Your task to perform on an android device: turn on wifi Image 0: 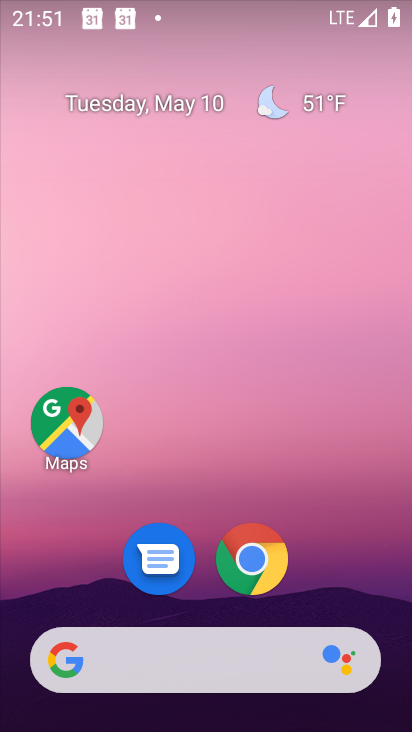
Step 0: drag from (346, 537) to (382, 291)
Your task to perform on an android device: turn on wifi Image 1: 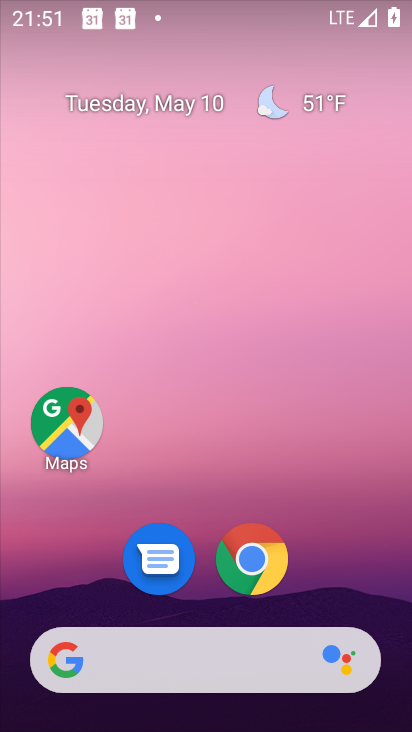
Step 1: drag from (372, 577) to (323, 34)
Your task to perform on an android device: turn on wifi Image 2: 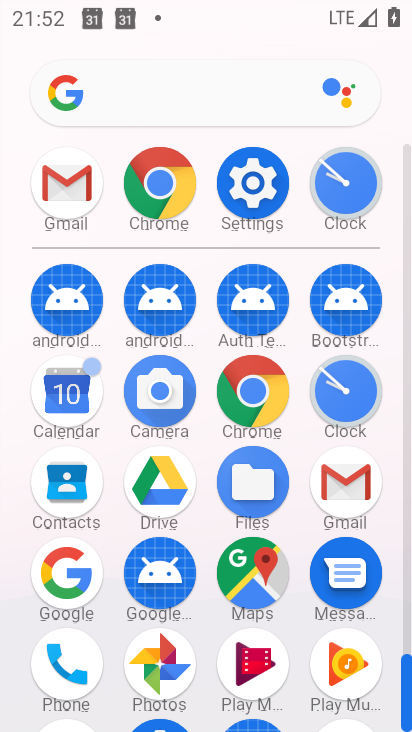
Step 2: click (255, 182)
Your task to perform on an android device: turn on wifi Image 3: 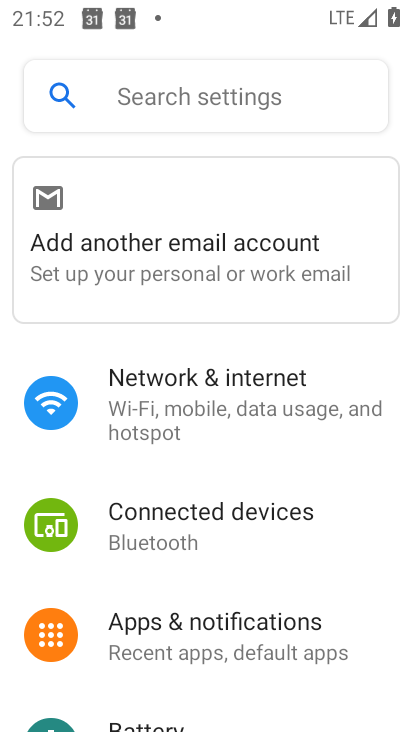
Step 3: click (226, 381)
Your task to perform on an android device: turn on wifi Image 4: 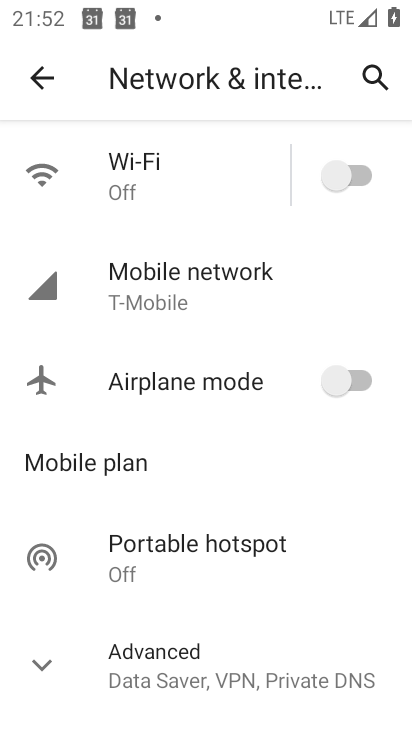
Step 4: click (344, 170)
Your task to perform on an android device: turn on wifi Image 5: 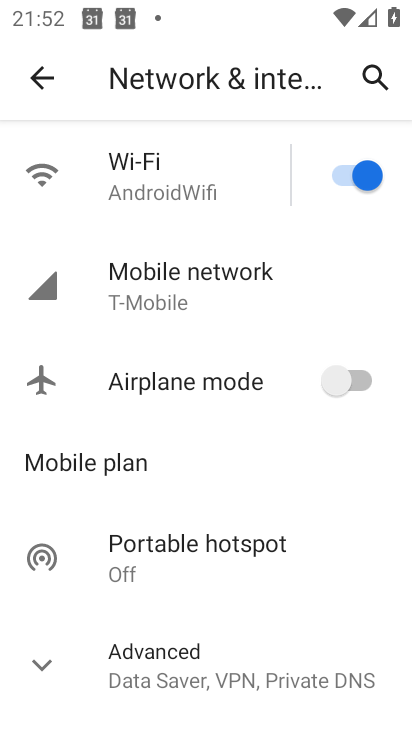
Step 5: task complete